Your task to perform on an android device: Show me popular videos on Youtube Image 0: 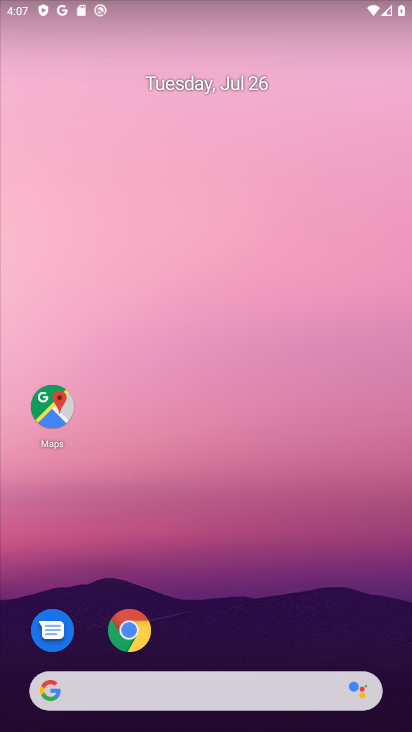
Step 0: drag from (316, 602) to (281, 71)
Your task to perform on an android device: Show me popular videos on Youtube Image 1: 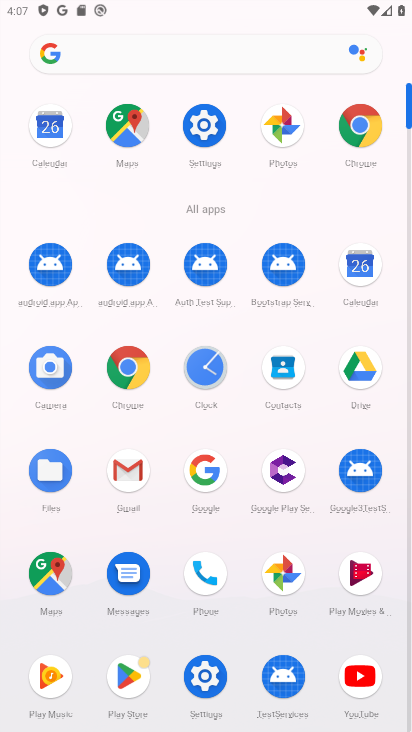
Step 1: click (354, 691)
Your task to perform on an android device: Show me popular videos on Youtube Image 2: 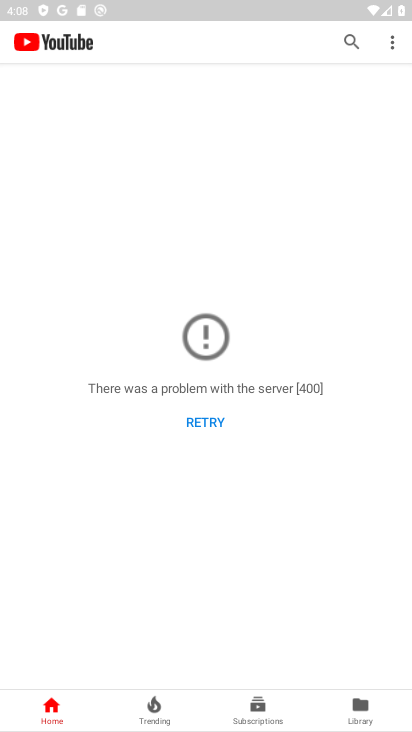
Step 2: task complete